Your task to perform on an android device: delete location history Image 0: 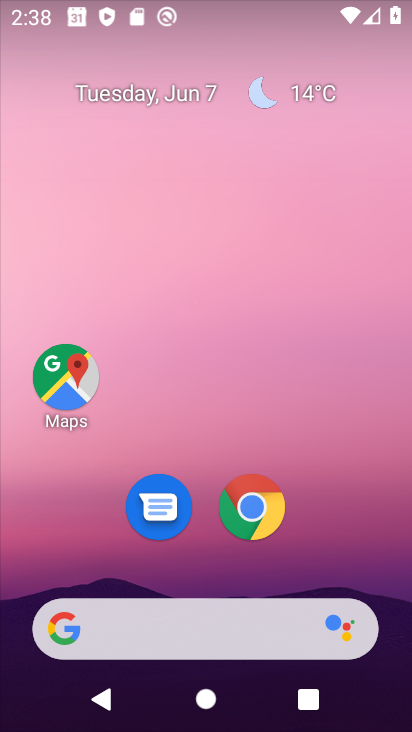
Step 0: drag from (345, 494) to (292, 92)
Your task to perform on an android device: delete location history Image 1: 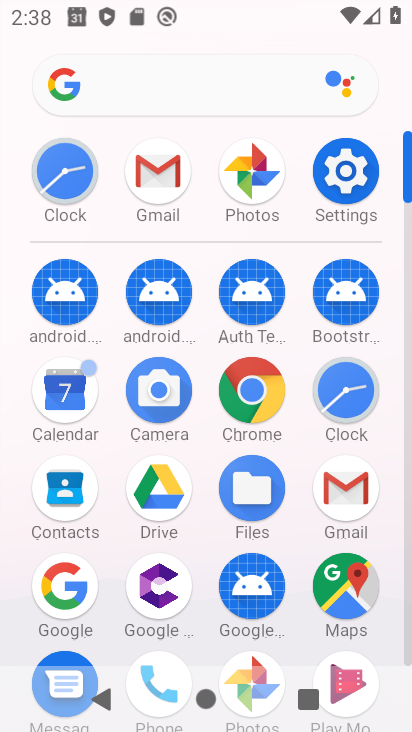
Step 1: click (353, 189)
Your task to perform on an android device: delete location history Image 2: 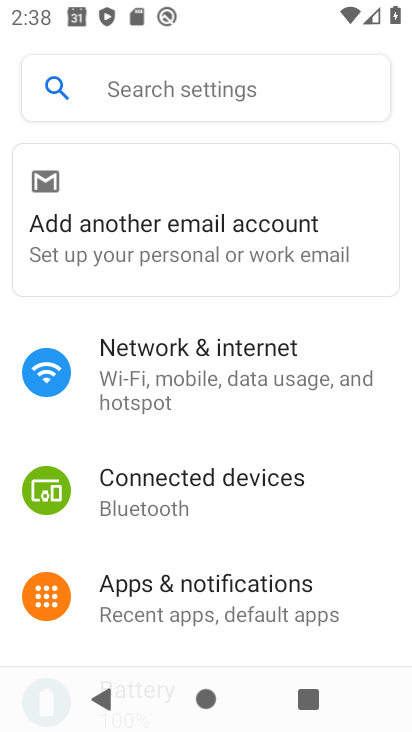
Step 2: drag from (239, 530) to (249, 165)
Your task to perform on an android device: delete location history Image 3: 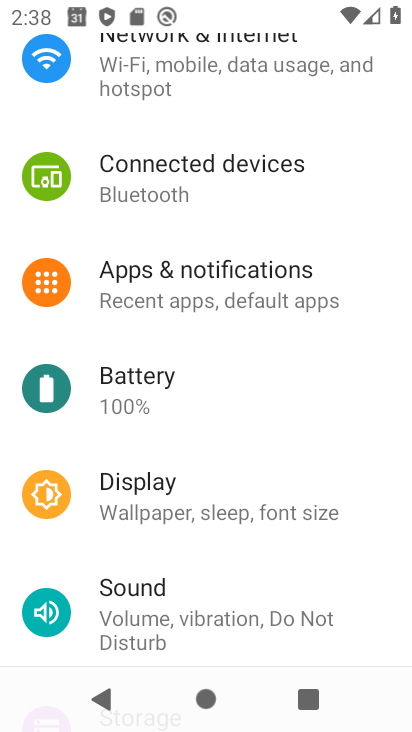
Step 3: drag from (187, 494) to (237, 130)
Your task to perform on an android device: delete location history Image 4: 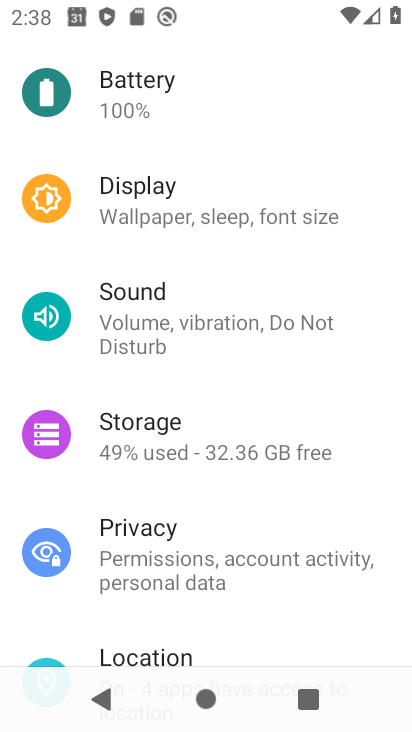
Step 4: drag from (185, 411) to (228, 128)
Your task to perform on an android device: delete location history Image 5: 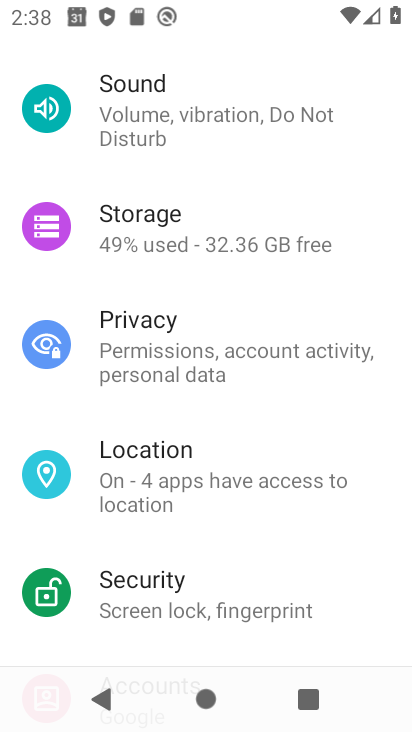
Step 5: click (134, 454)
Your task to perform on an android device: delete location history Image 6: 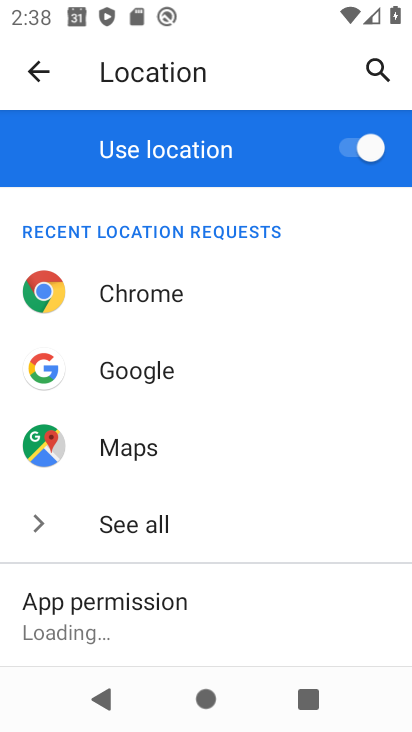
Step 6: drag from (166, 454) to (268, 42)
Your task to perform on an android device: delete location history Image 7: 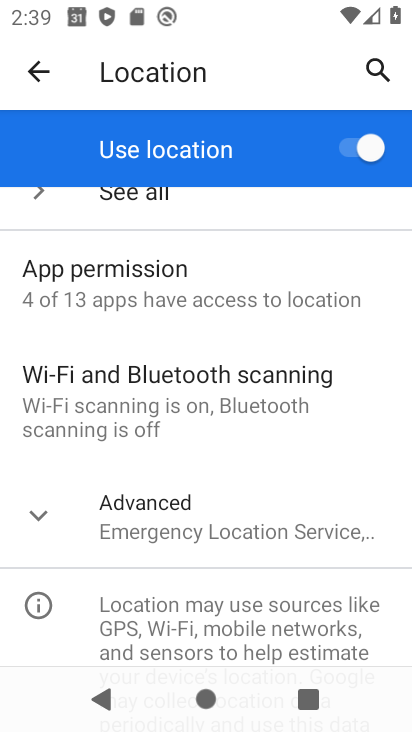
Step 7: click (227, 525)
Your task to perform on an android device: delete location history Image 8: 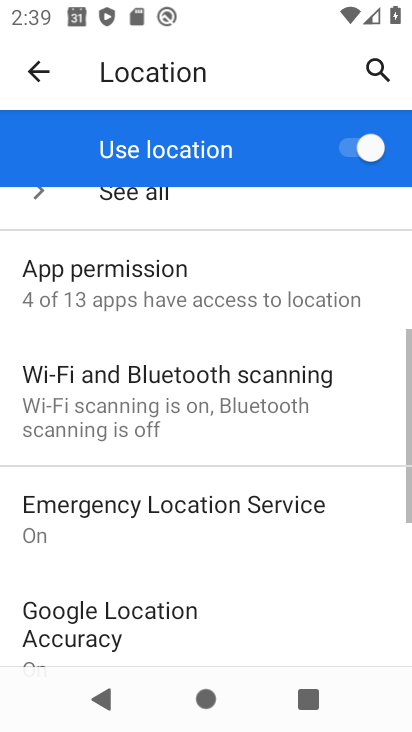
Step 8: drag from (278, 561) to (344, 143)
Your task to perform on an android device: delete location history Image 9: 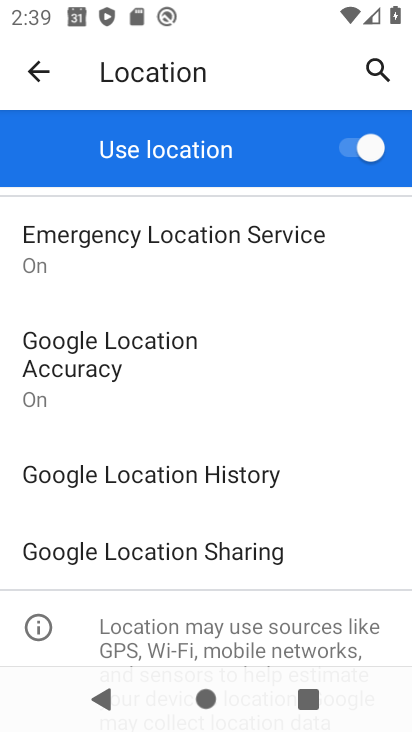
Step 9: click (240, 474)
Your task to perform on an android device: delete location history Image 10: 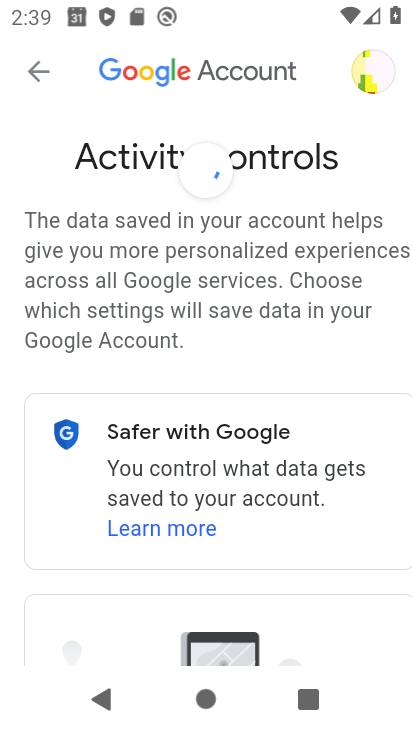
Step 10: drag from (284, 548) to (308, 132)
Your task to perform on an android device: delete location history Image 11: 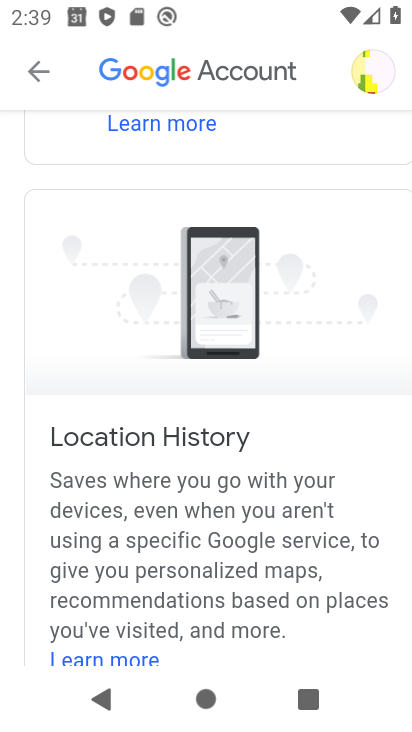
Step 11: drag from (232, 522) to (281, 218)
Your task to perform on an android device: delete location history Image 12: 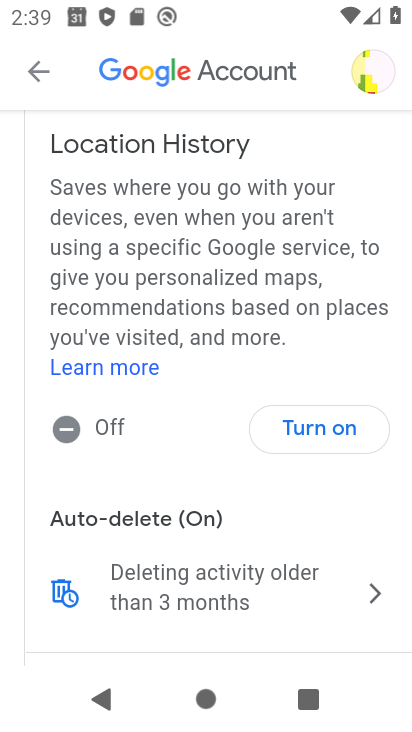
Step 12: drag from (220, 523) to (228, 133)
Your task to perform on an android device: delete location history Image 13: 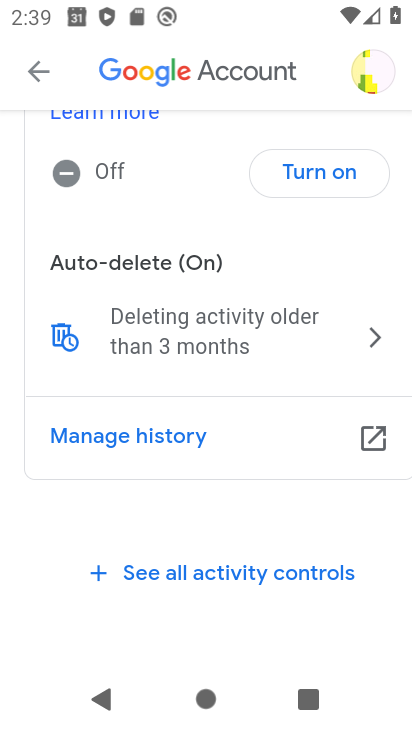
Step 13: drag from (221, 145) to (177, 633)
Your task to perform on an android device: delete location history Image 14: 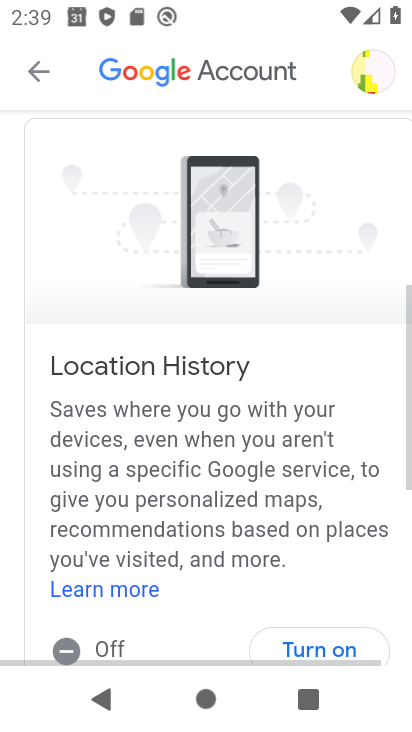
Step 14: drag from (222, 269) to (202, 630)
Your task to perform on an android device: delete location history Image 15: 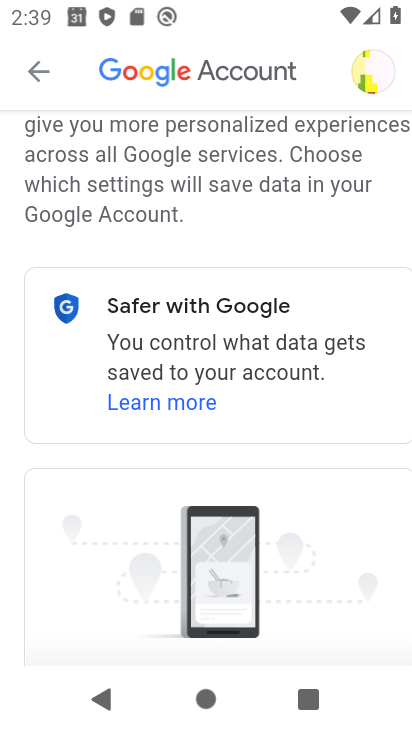
Step 15: drag from (253, 320) to (295, 693)
Your task to perform on an android device: delete location history Image 16: 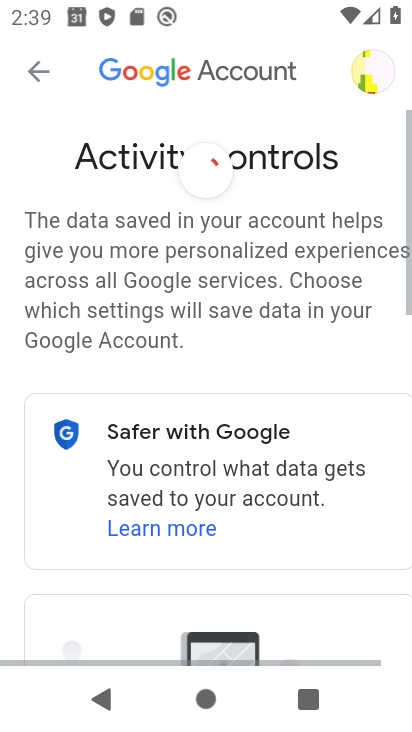
Step 16: drag from (241, 252) to (251, 589)
Your task to perform on an android device: delete location history Image 17: 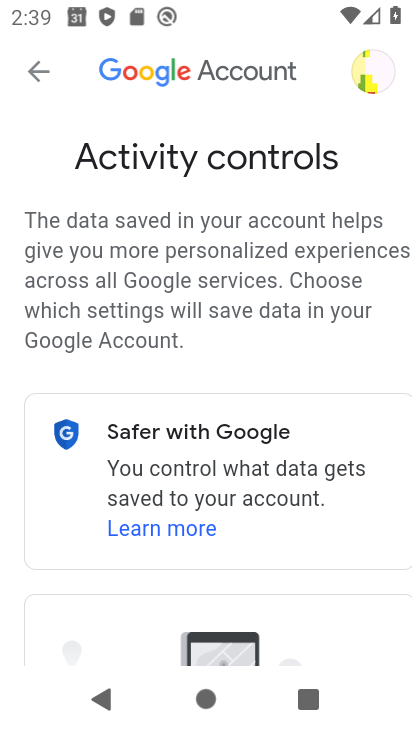
Step 17: drag from (288, 234) to (284, 479)
Your task to perform on an android device: delete location history Image 18: 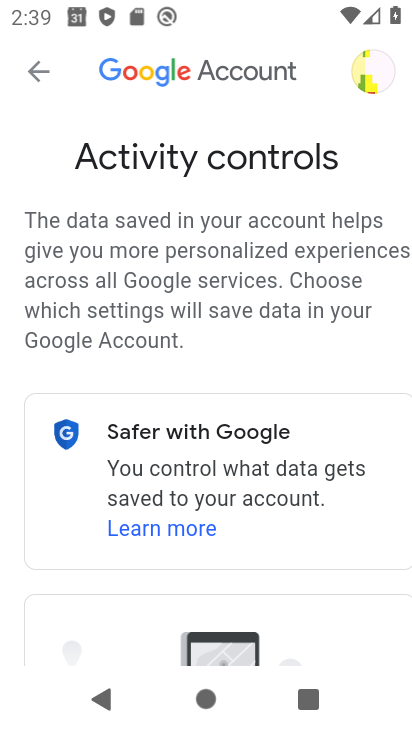
Step 18: drag from (288, 274) to (261, 500)
Your task to perform on an android device: delete location history Image 19: 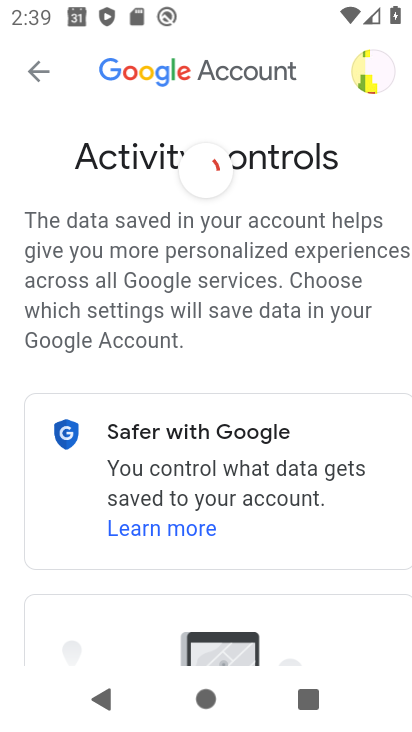
Step 19: click (36, 68)
Your task to perform on an android device: delete location history Image 20: 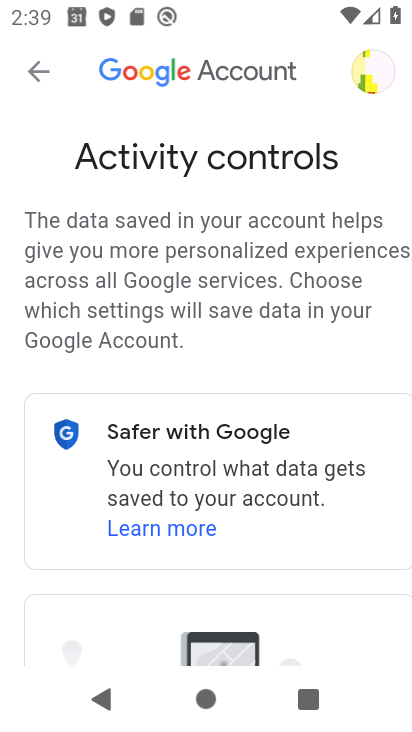
Step 20: click (50, 69)
Your task to perform on an android device: delete location history Image 21: 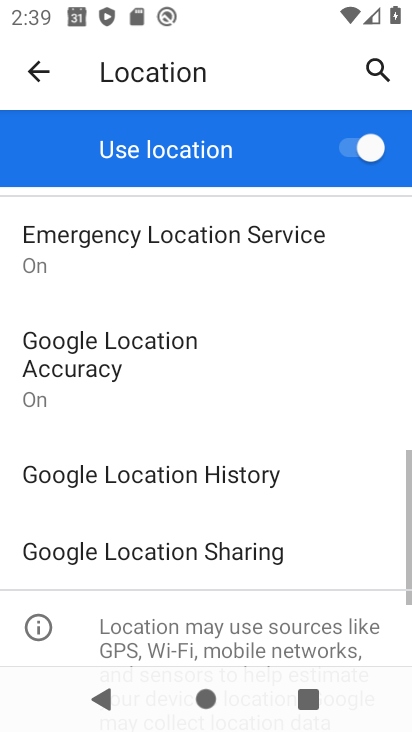
Step 21: drag from (247, 250) to (238, 548)
Your task to perform on an android device: delete location history Image 22: 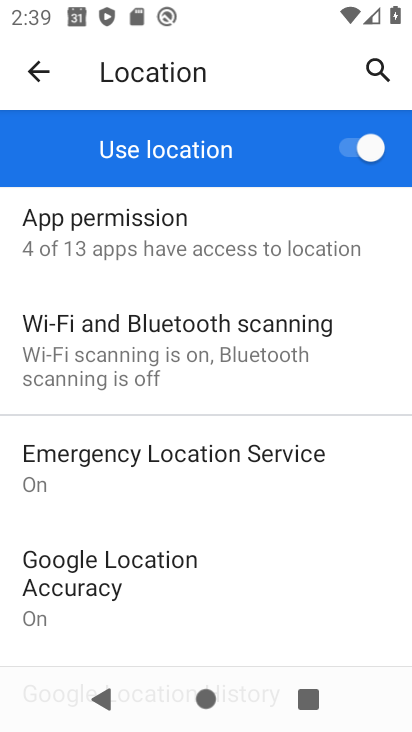
Step 22: drag from (252, 281) to (237, 635)
Your task to perform on an android device: delete location history Image 23: 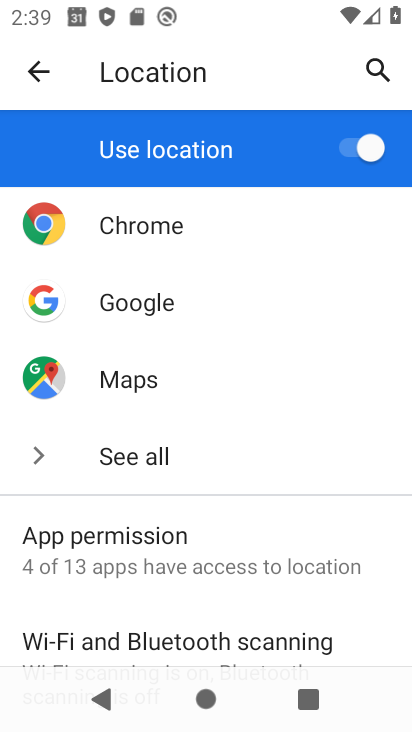
Step 23: click (53, 372)
Your task to perform on an android device: delete location history Image 24: 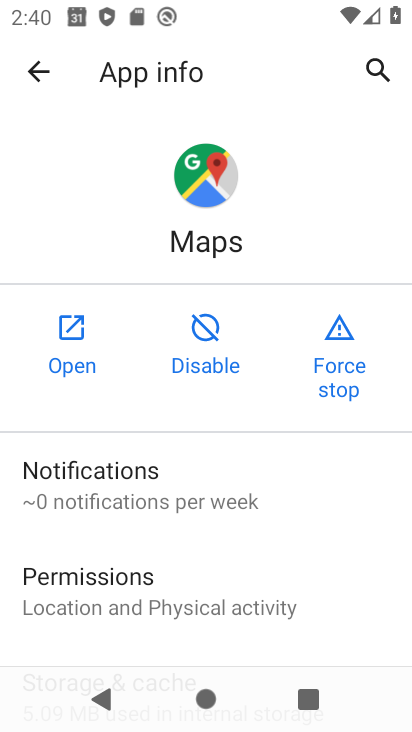
Step 24: click (71, 352)
Your task to perform on an android device: delete location history Image 25: 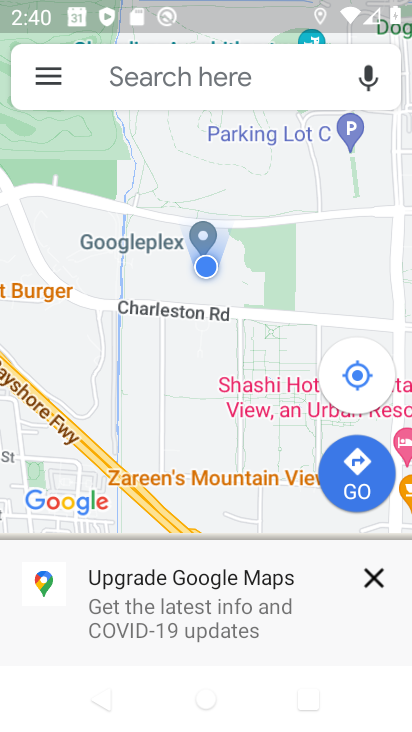
Step 25: click (52, 75)
Your task to perform on an android device: delete location history Image 26: 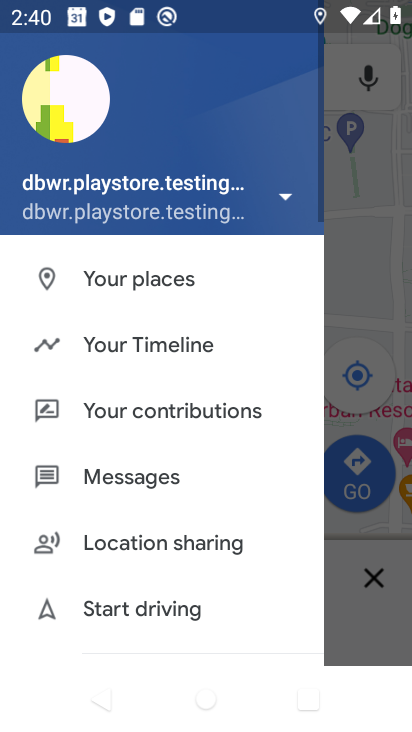
Step 26: drag from (161, 551) to (249, 97)
Your task to perform on an android device: delete location history Image 27: 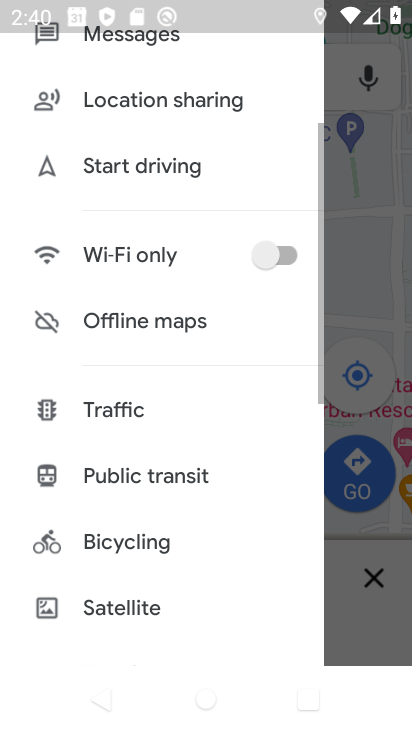
Step 27: drag from (166, 548) to (203, 102)
Your task to perform on an android device: delete location history Image 28: 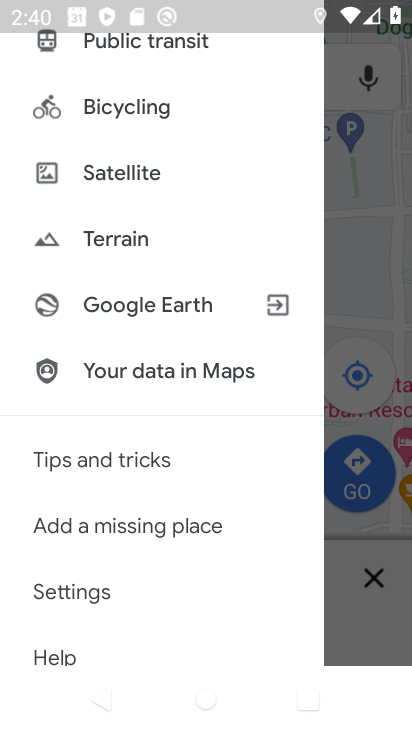
Step 28: click (87, 589)
Your task to perform on an android device: delete location history Image 29: 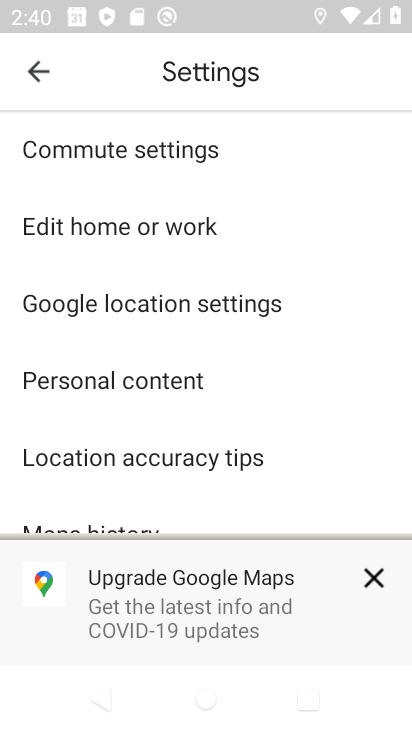
Step 29: drag from (217, 405) to (303, 115)
Your task to perform on an android device: delete location history Image 30: 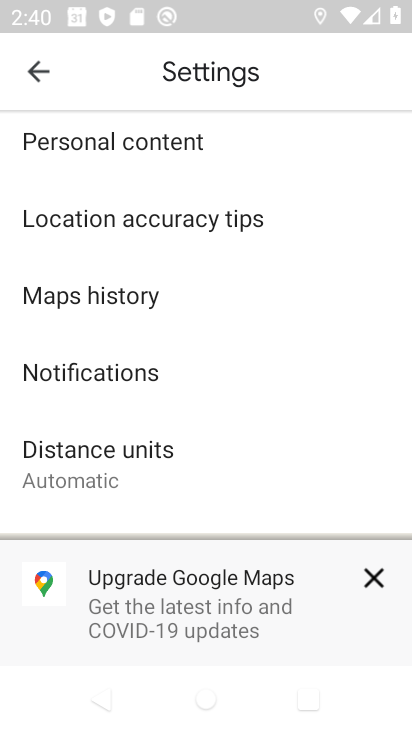
Step 30: click (132, 287)
Your task to perform on an android device: delete location history Image 31: 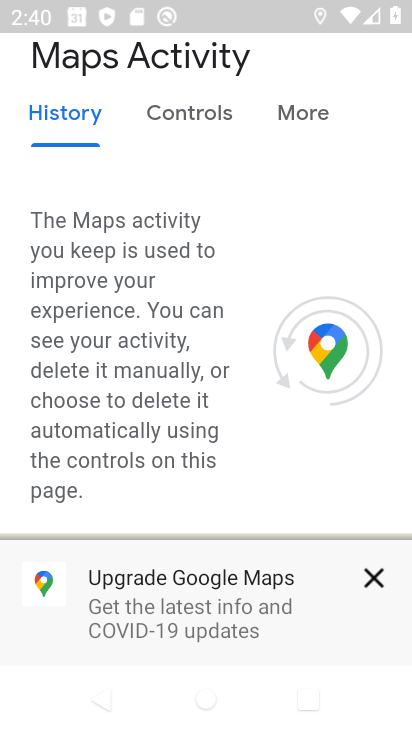
Step 31: drag from (245, 387) to (239, 15)
Your task to perform on an android device: delete location history Image 32: 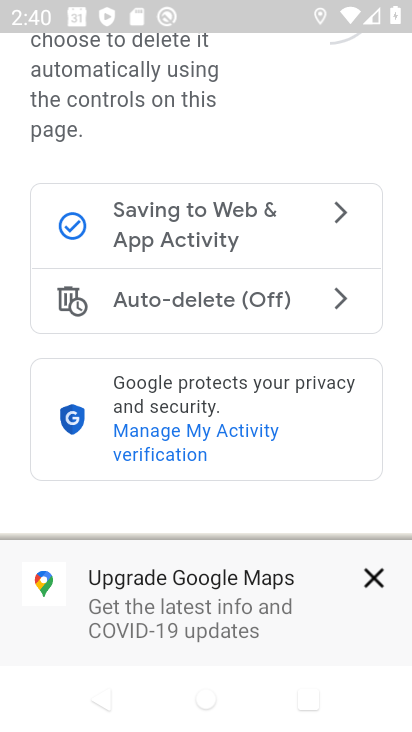
Step 32: drag from (230, 396) to (325, 30)
Your task to perform on an android device: delete location history Image 33: 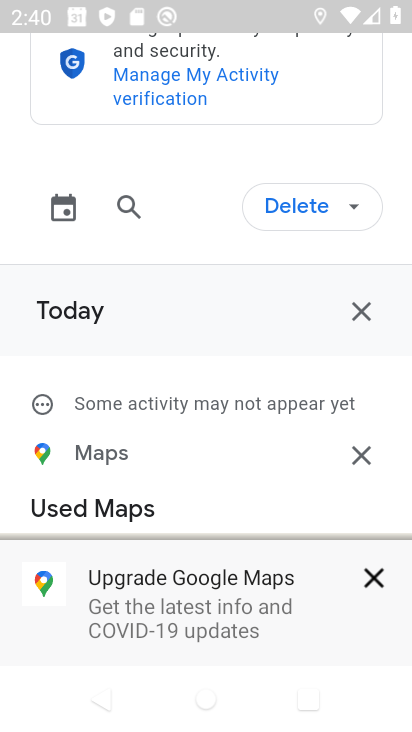
Step 33: click (367, 206)
Your task to perform on an android device: delete location history Image 34: 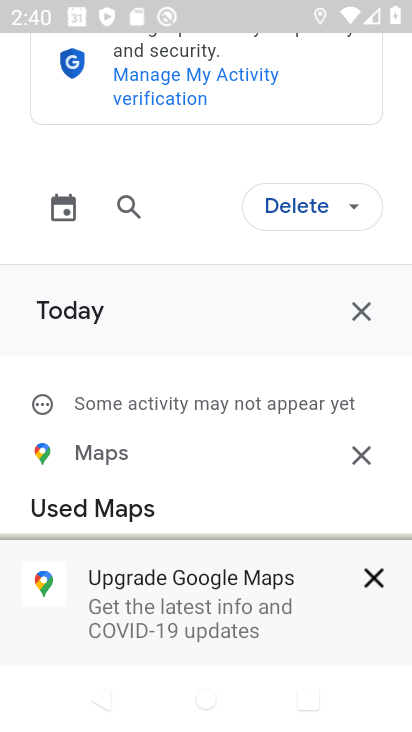
Step 34: click (350, 206)
Your task to perform on an android device: delete location history Image 35: 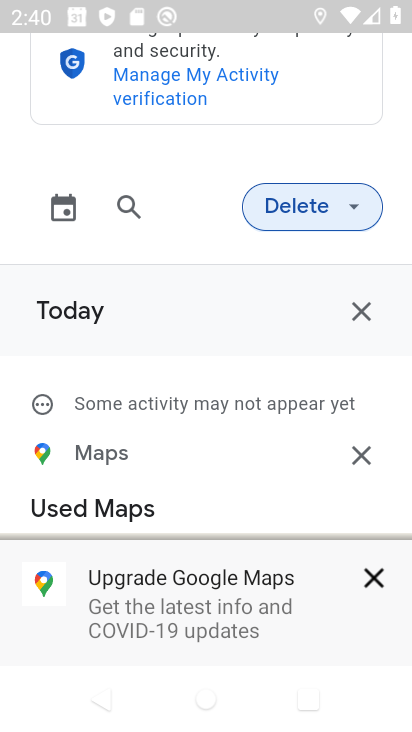
Step 35: click (327, 202)
Your task to perform on an android device: delete location history Image 36: 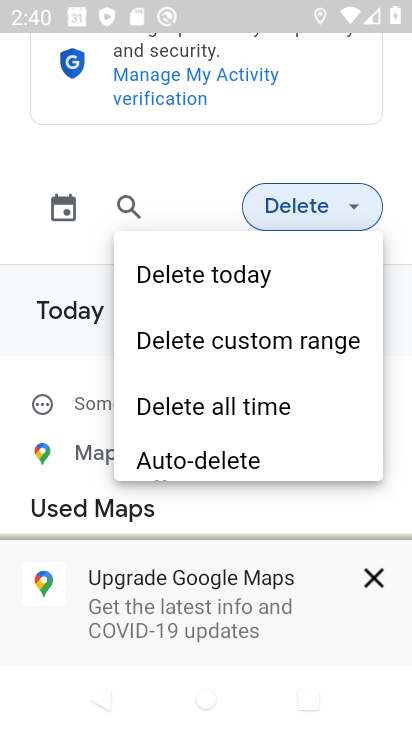
Step 36: click (216, 407)
Your task to perform on an android device: delete location history Image 37: 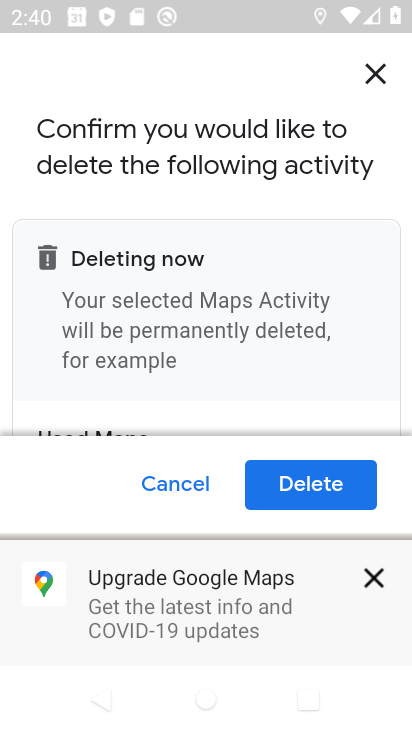
Step 37: click (343, 502)
Your task to perform on an android device: delete location history Image 38: 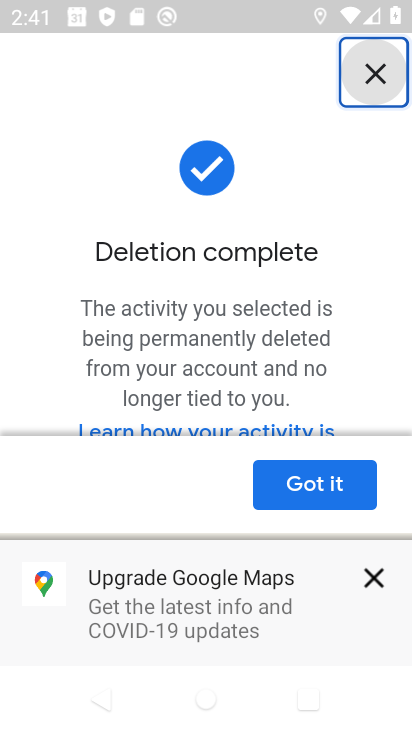
Step 38: task complete